Your task to perform on an android device: Go to Android settings Image 0: 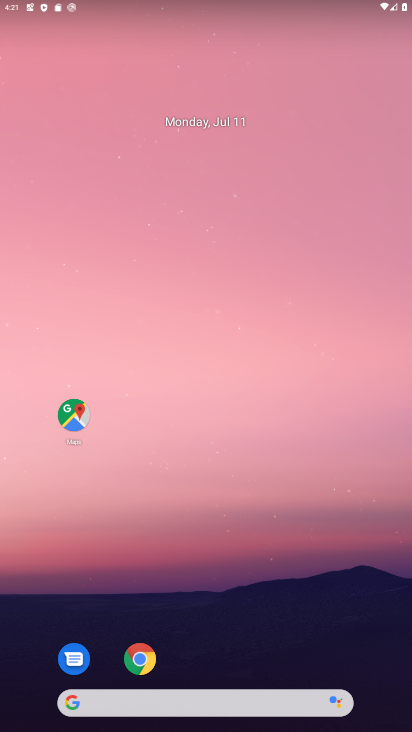
Step 0: drag from (264, 296) to (305, 3)
Your task to perform on an android device: Go to Android settings Image 1: 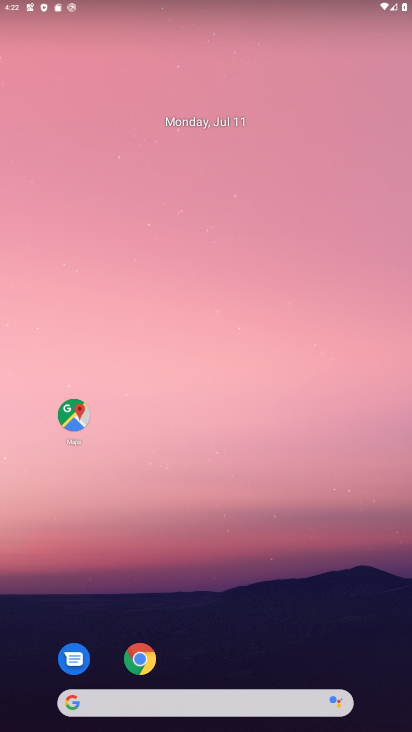
Step 1: drag from (221, 656) to (251, 8)
Your task to perform on an android device: Go to Android settings Image 2: 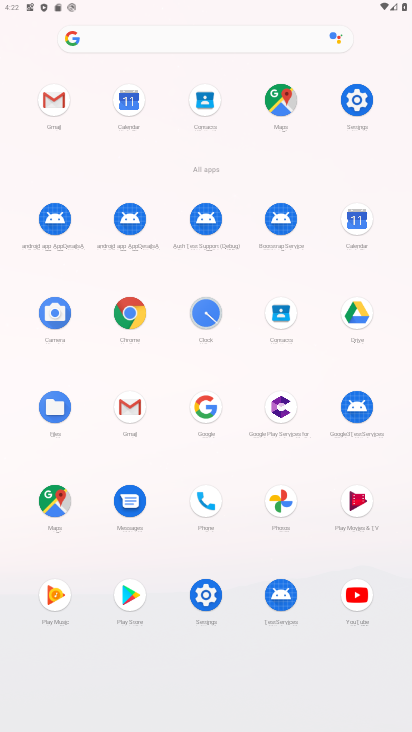
Step 2: click (353, 105)
Your task to perform on an android device: Go to Android settings Image 3: 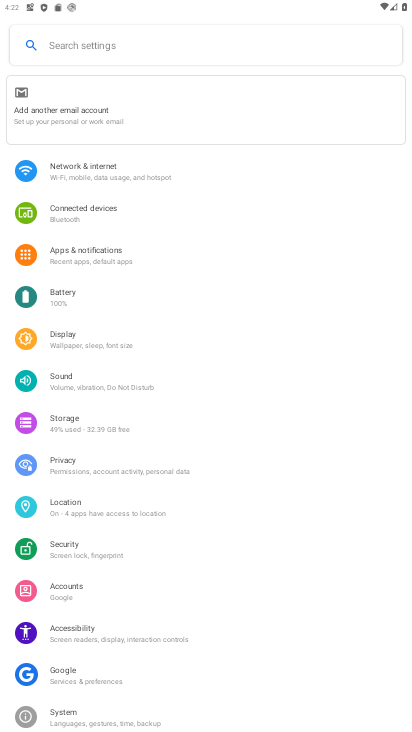
Step 3: drag from (159, 542) to (194, 196)
Your task to perform on an android device: Go to Android settings Image 4: 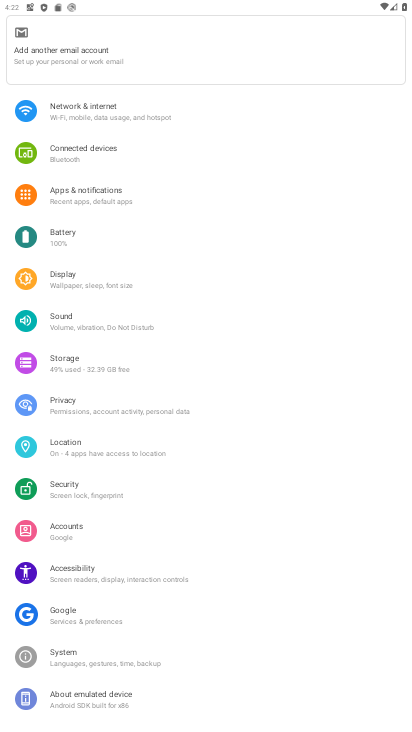
Step 4: click (160, 721)
Your task to perform on an android device: Go to Android settings Image 5: 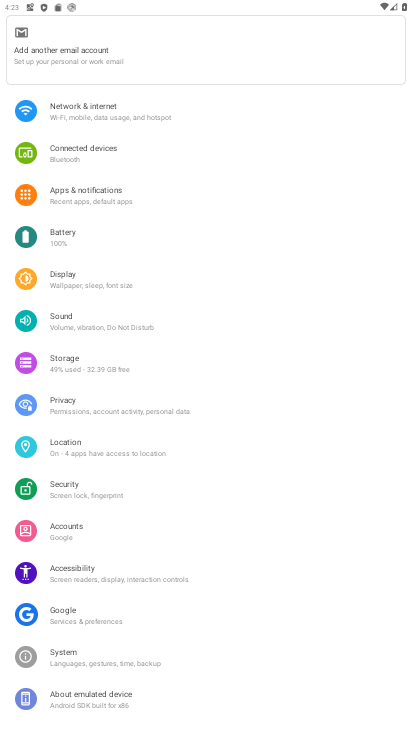
Step 5: click (141, 704)
Your task to perform on an android device: Go to Android settings Image 6: 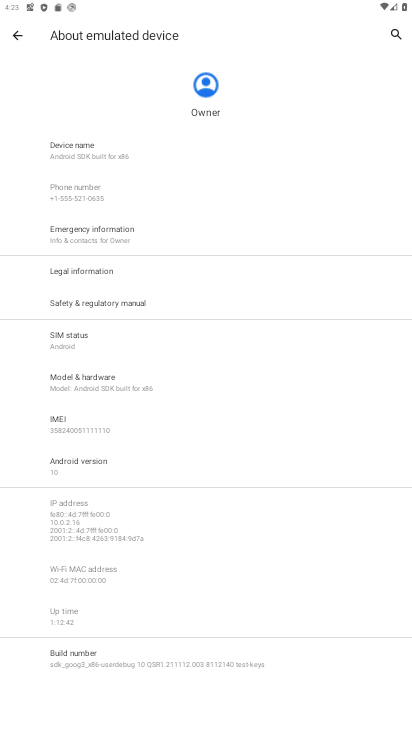
Step 6: click (72, 462)
Your task to perform on an android device: Go to Android settings Image 7: 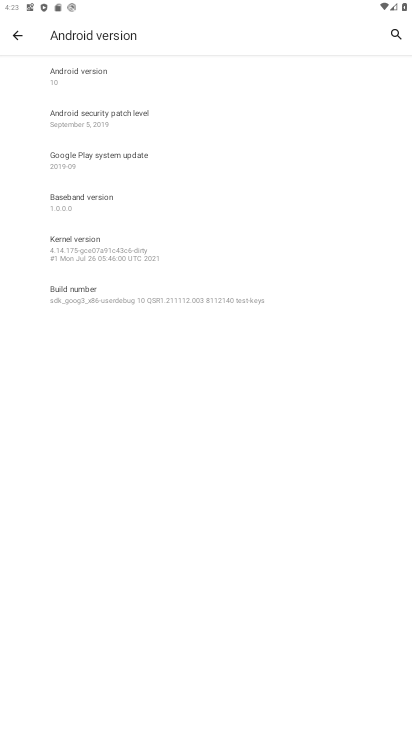
Step 7: task complete